Your task to perform on an android device: Show me popular games on the Play Store Image 0: 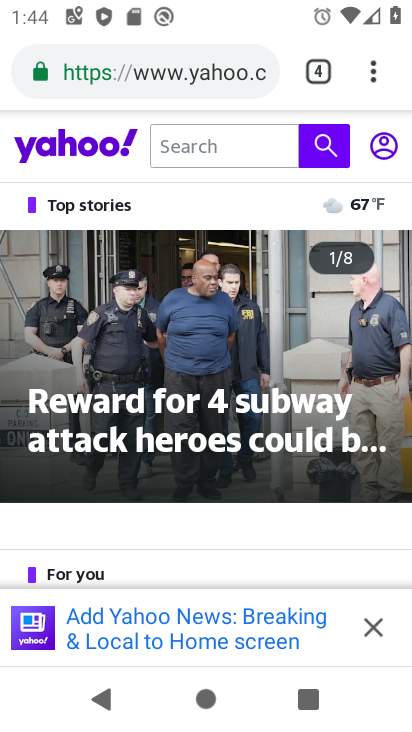
Step 0: press home button
Your task to perform on an android device: Show me popular games on the Play Store Image 1: 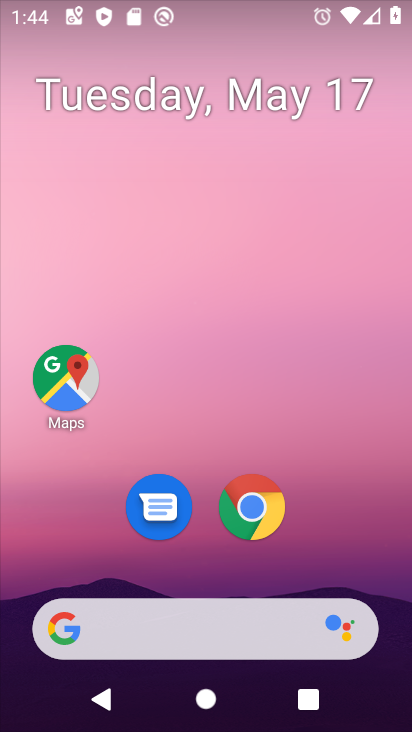
Step 1: drag from (215, 557) to (236, 283)
Your task to perform on an android device: Show me popular games on the Play Store Image 2: 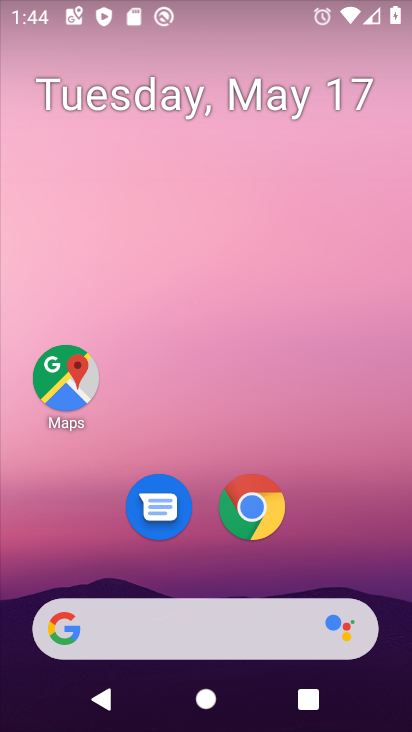
Step 2: drag from (243, 513) to (285, 187)
Your task to perform on an android device: Show me popular games on the Play Store Image 3: 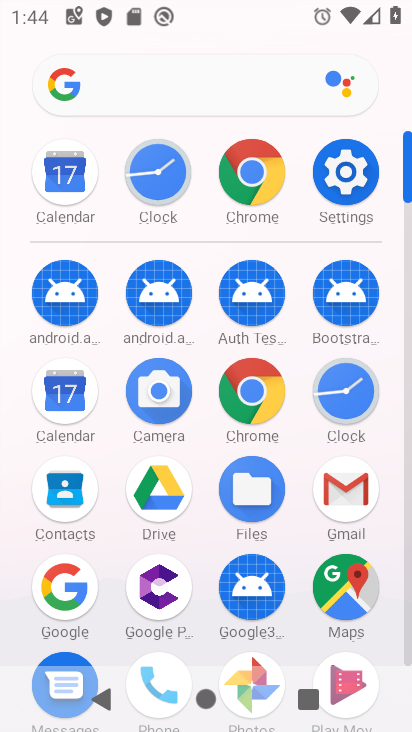
Step 3: drag from (200, 538) to (212, 171)
Your task to perform on an android device: Show me popular games on the Play Store Image 4: 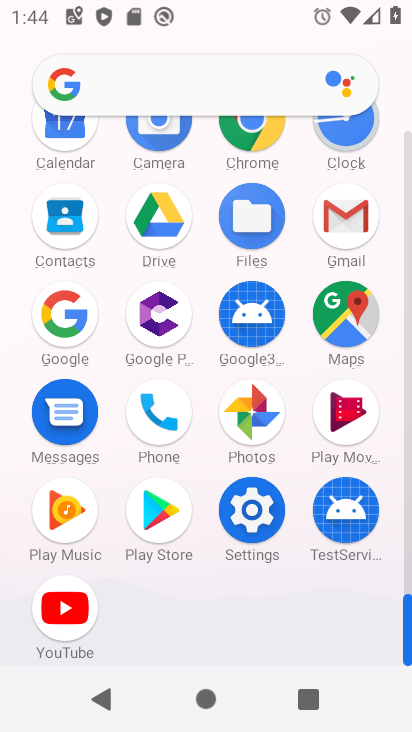
Step 4: click (147, 513)
Your task to perform on an android device: Show me popular games on the Play Store Image 5: 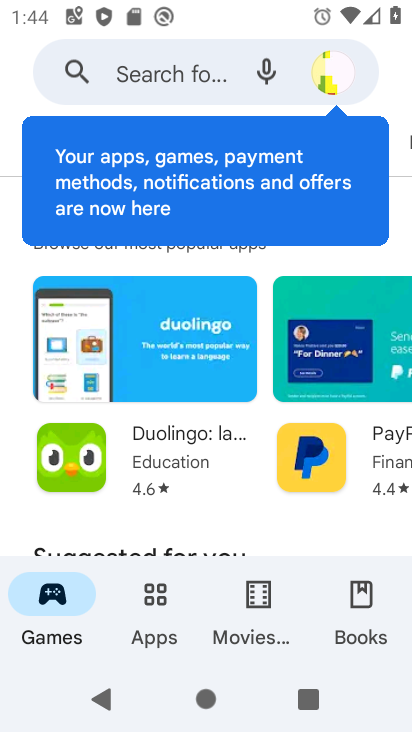
Step 5: task complete